Your task to perform on an android device: Open the stopwatch Image 0: 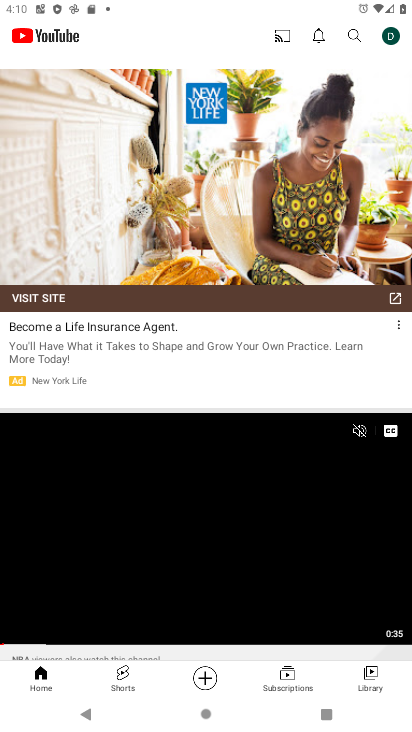
Step 0: press home button
Your task to perform on an android device: Open the stopwatch Image 1: 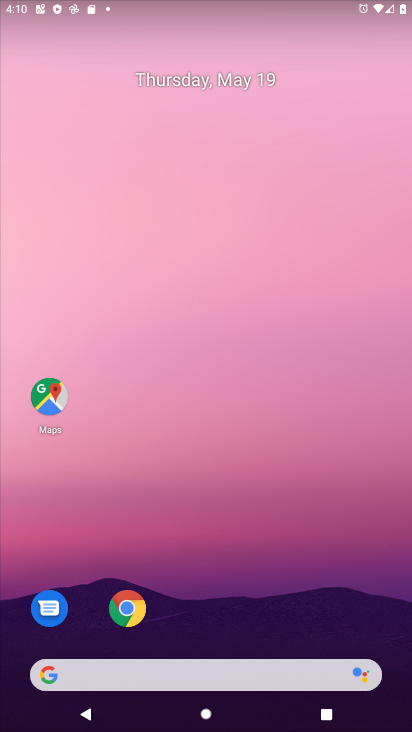
Step 1: drag from (188, 620) to (236, 41)
Your task to perform on an android device: Open the stopwatch Image 2: 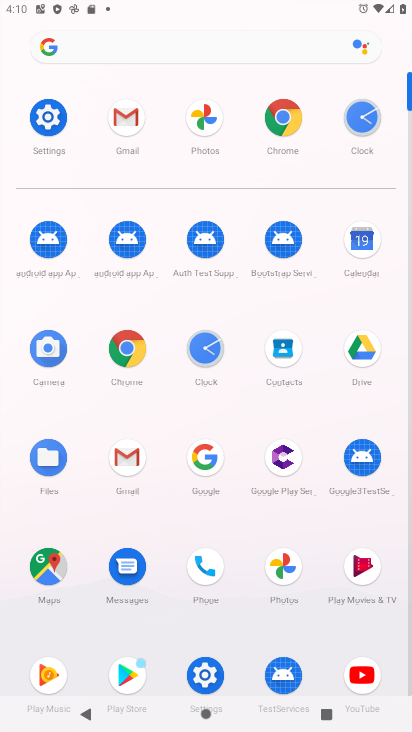
Step 2: click (373, 142)
Your task to perform on an android device: Open the stopwatch Image 3: 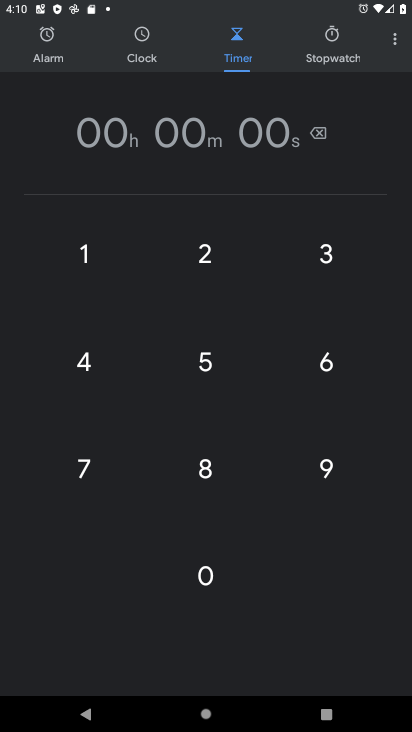
Step 3: click (325, 62)
Your task to perform on an android device: Open the stopwatch Image 4: 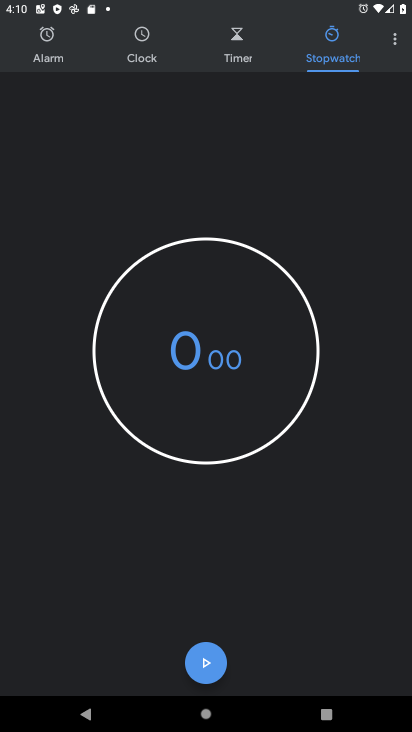
Step 4: task complete